Your task to perform on an android device: toggle notifications settings in the gmail app Image 0: 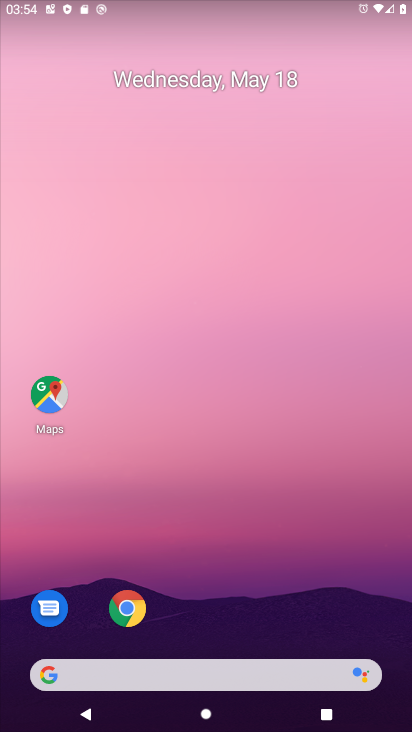
Step 0: drag from (218, 612) to (200, 38)
Your task to perform on an android device: toggle notifications settings in the gmail app Image 1: 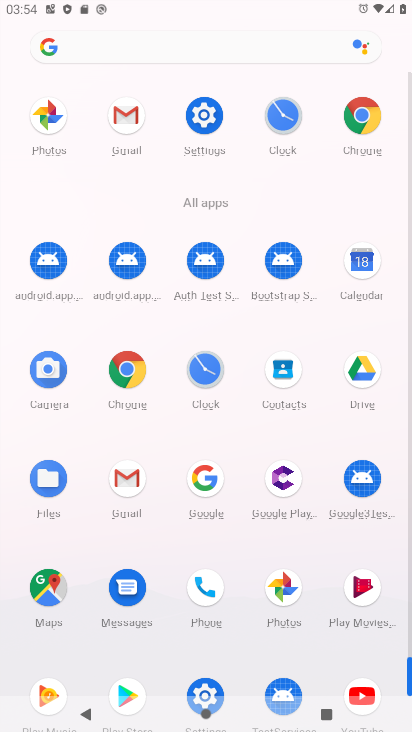
Step 1: click (123, 104)
Your task to perform on an android device: toggle notifications settings in the gmail app Image 2: 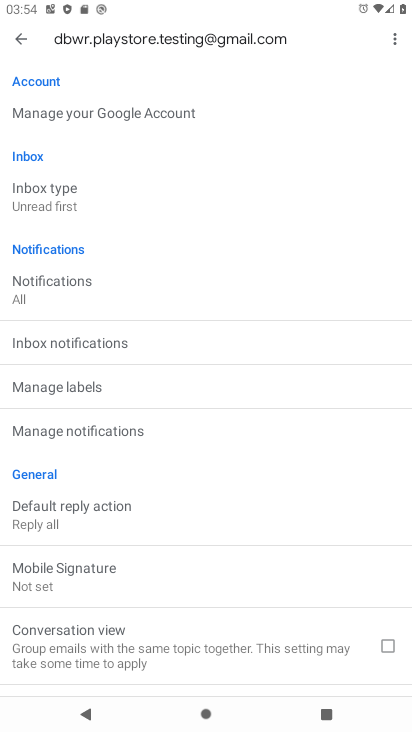
Step 2: click (78, 267)
Your task to perform on an android device: toggle notifications settings in the gmail app Image 3: 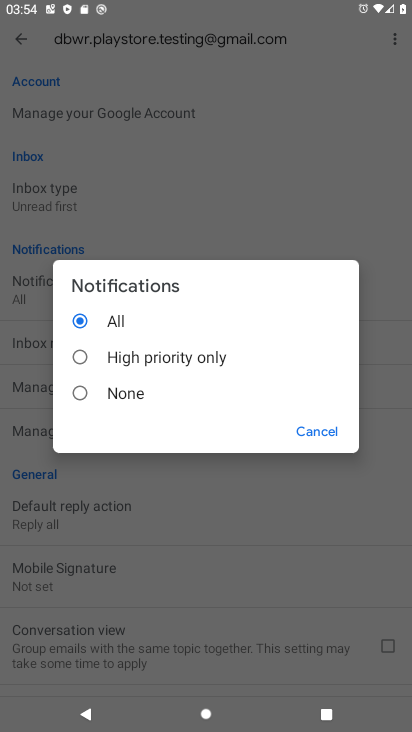
Step 3: click (137, 350)
Your task to perform on an android device: toggle notifications settings in the gmail app Image 4: 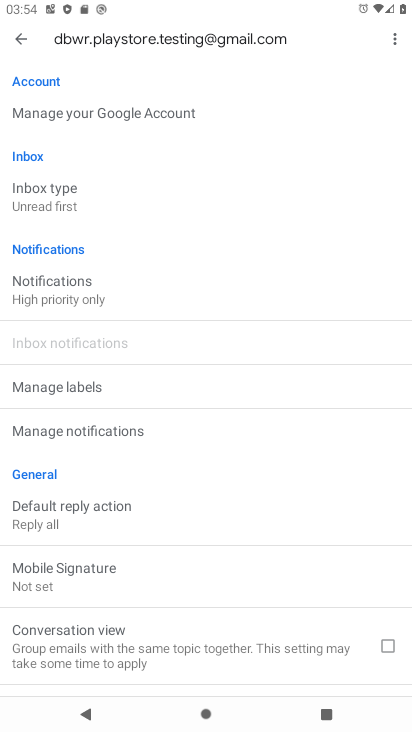
Step 4: task complete